Your task to perform on an android device: turn notification dots on Image 0: 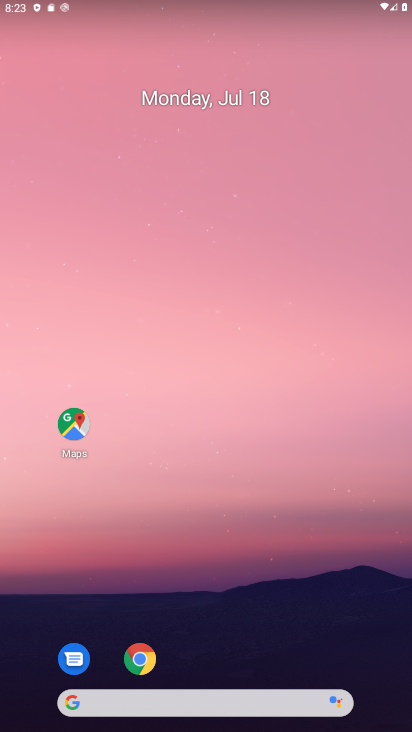
Step 0: drag from (152, 643) to (102, 261)
Your task to perform on an android device: turn notification dots on Image 1: 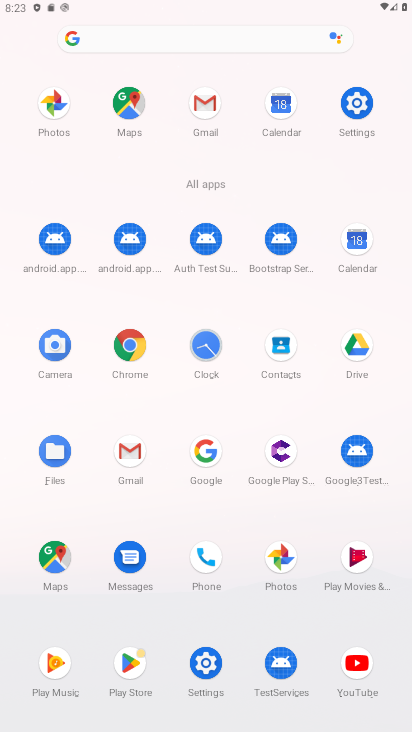
Step 1: click (353, 89)
Your task to perform on an android device: turn notification dots on Image 2: 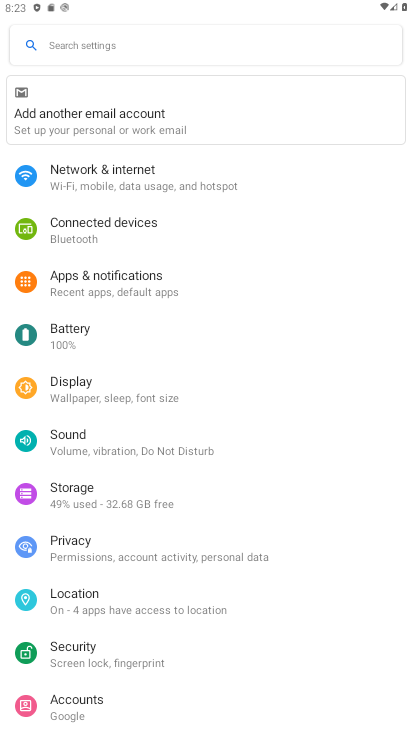
Step 2: click (84, 280)
Your task to perform on an android device: turn notification dots on Image 3: 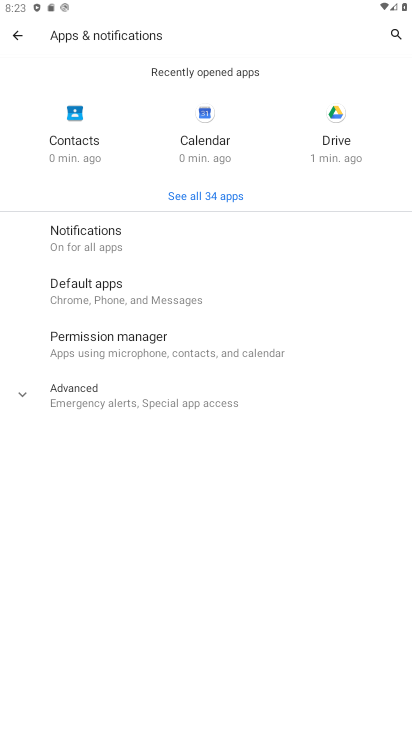
Step 3: click (74, 239)
Your task to perform on an android device: turn notification dots on Image 4: 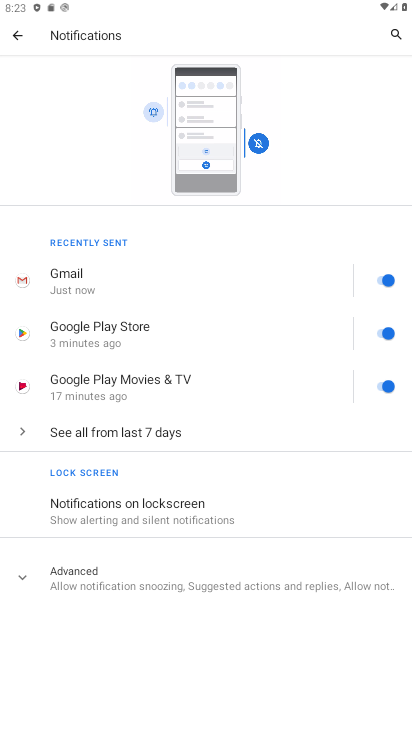
Step 4: click (77, 575)
Your task to perform on an android device: turn notification dots on Image 5: 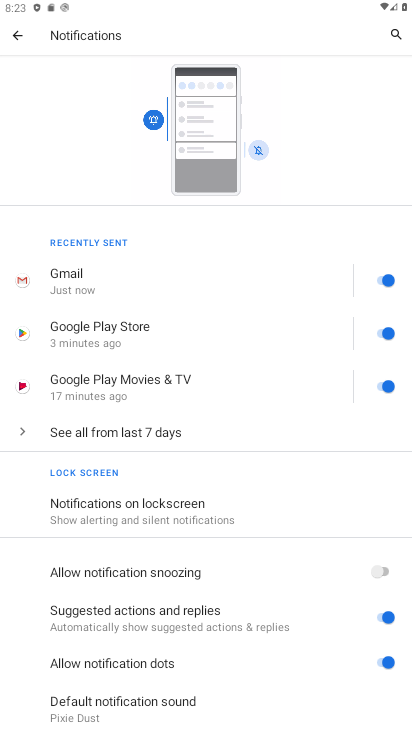
Step 5: click (393, 662)
Your task to perform on an android device: turn notification dots on Image 6: 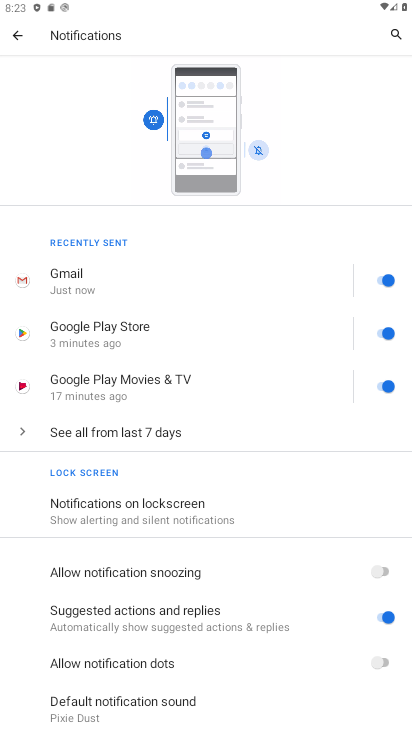
Step 6: click (375, 667)
Your task to perform on an android device: turn notification dots on Image 7: 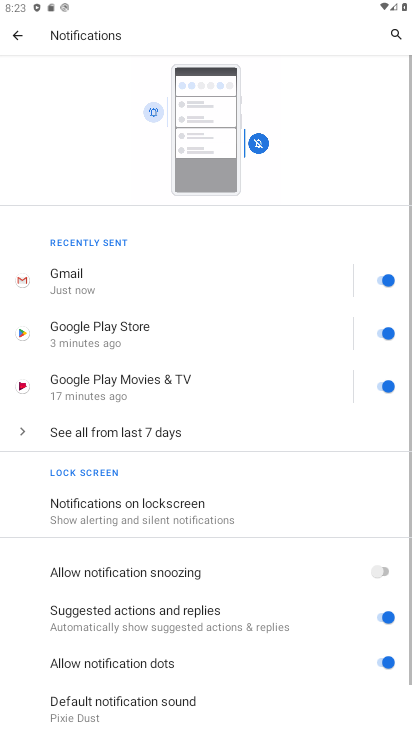
Step 7: task complete